Your task to perform on an android device: Add "logitech g pro" to the cart on newegg.com, then select checkout. Image 0: 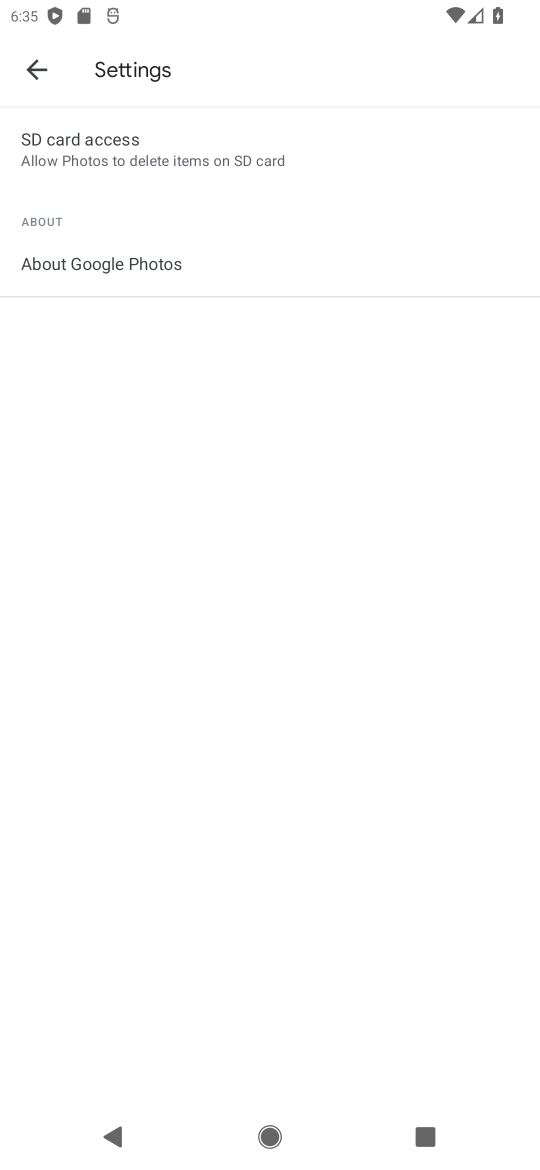
Step 0: task complete